Your task to perform on an android device: open app "Truecaller" Image 0: 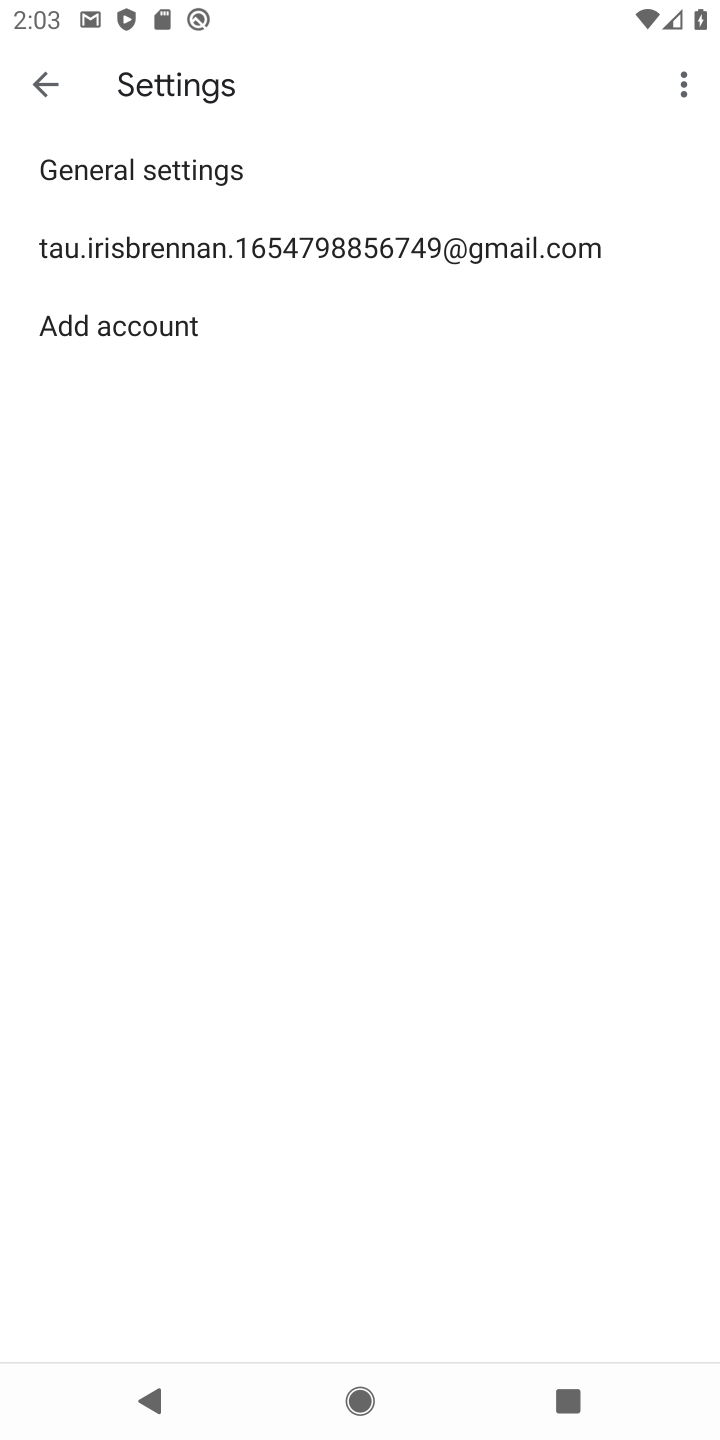
Step 0: press home button
Your task to perform on an android device: open app "Truecaller" Image 1: 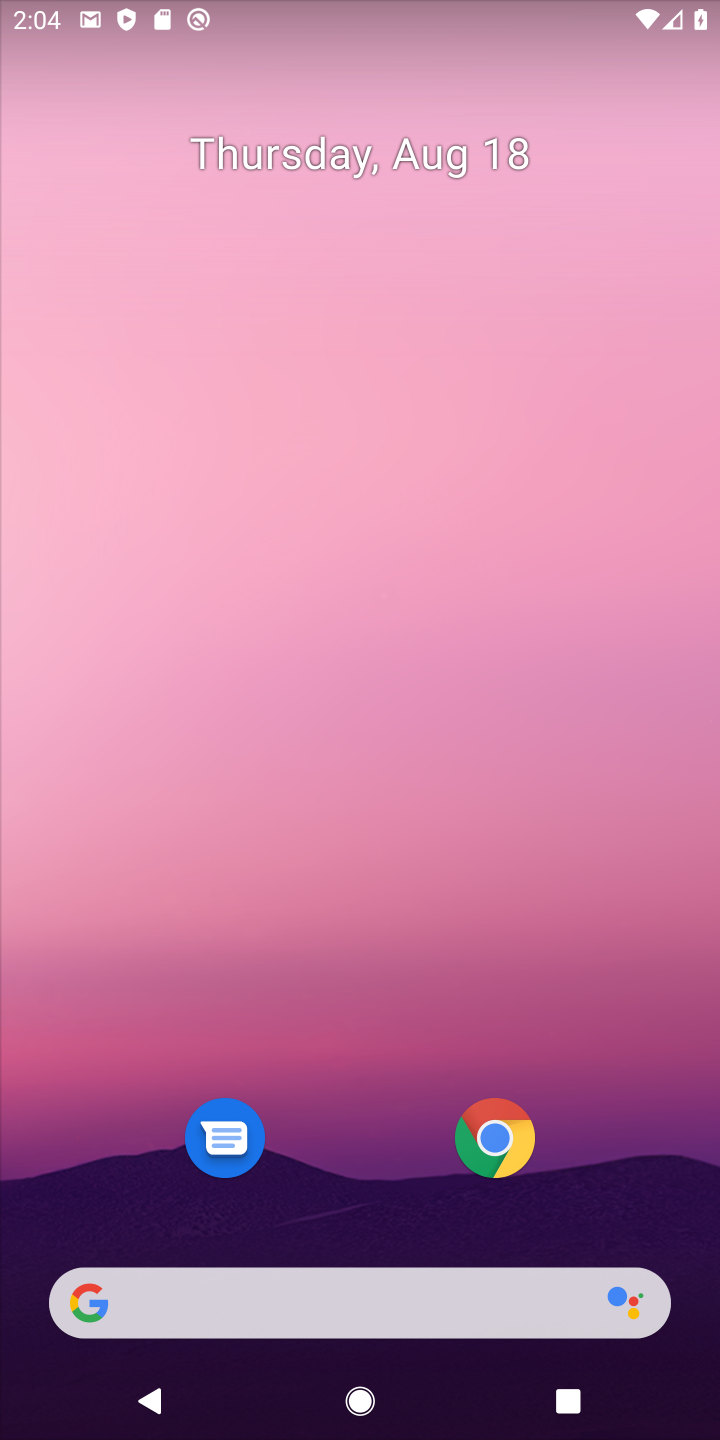
Step 1: drag from (358, 974) to (338, 299)
Your task to perform on an android device: open app "Truecaller" Image 2: 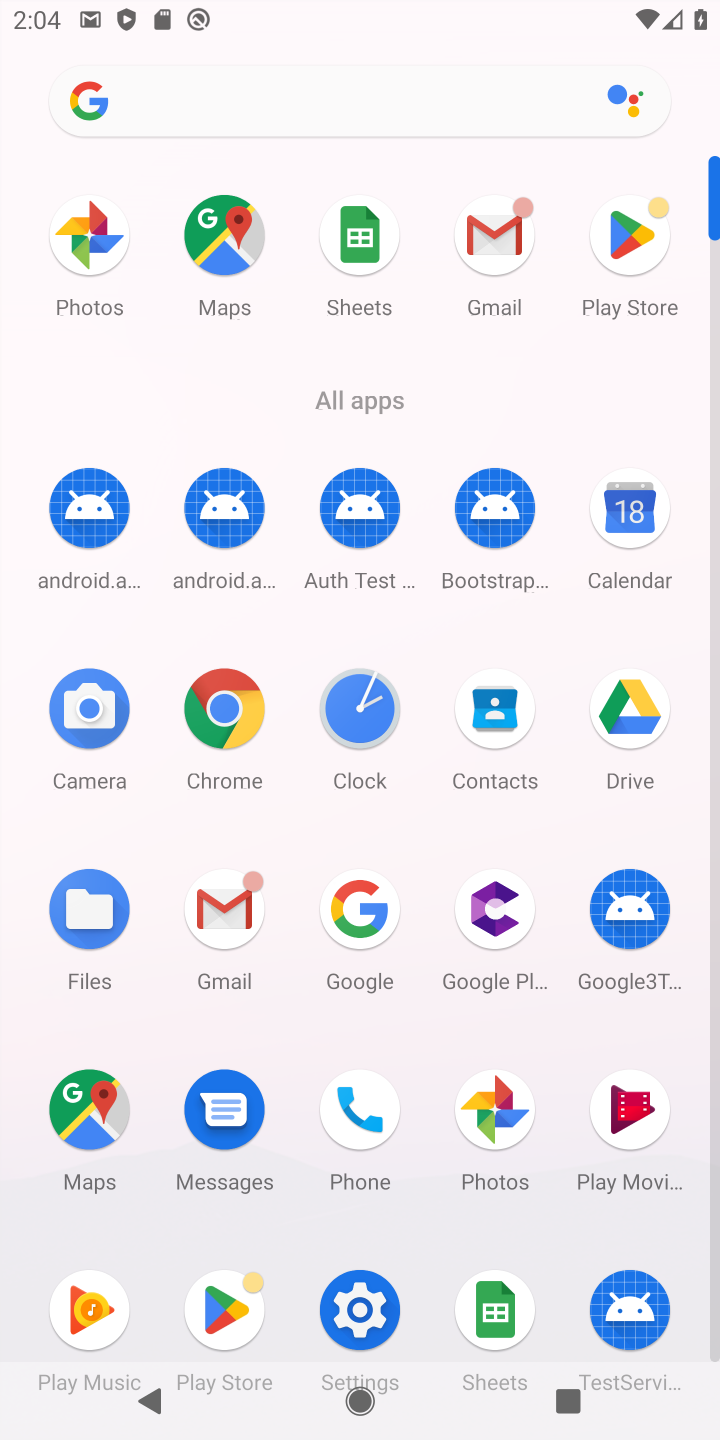
Step 2: click (232, 1315)
Your task to perform on an android device: open app "Truecaller" Image 3: 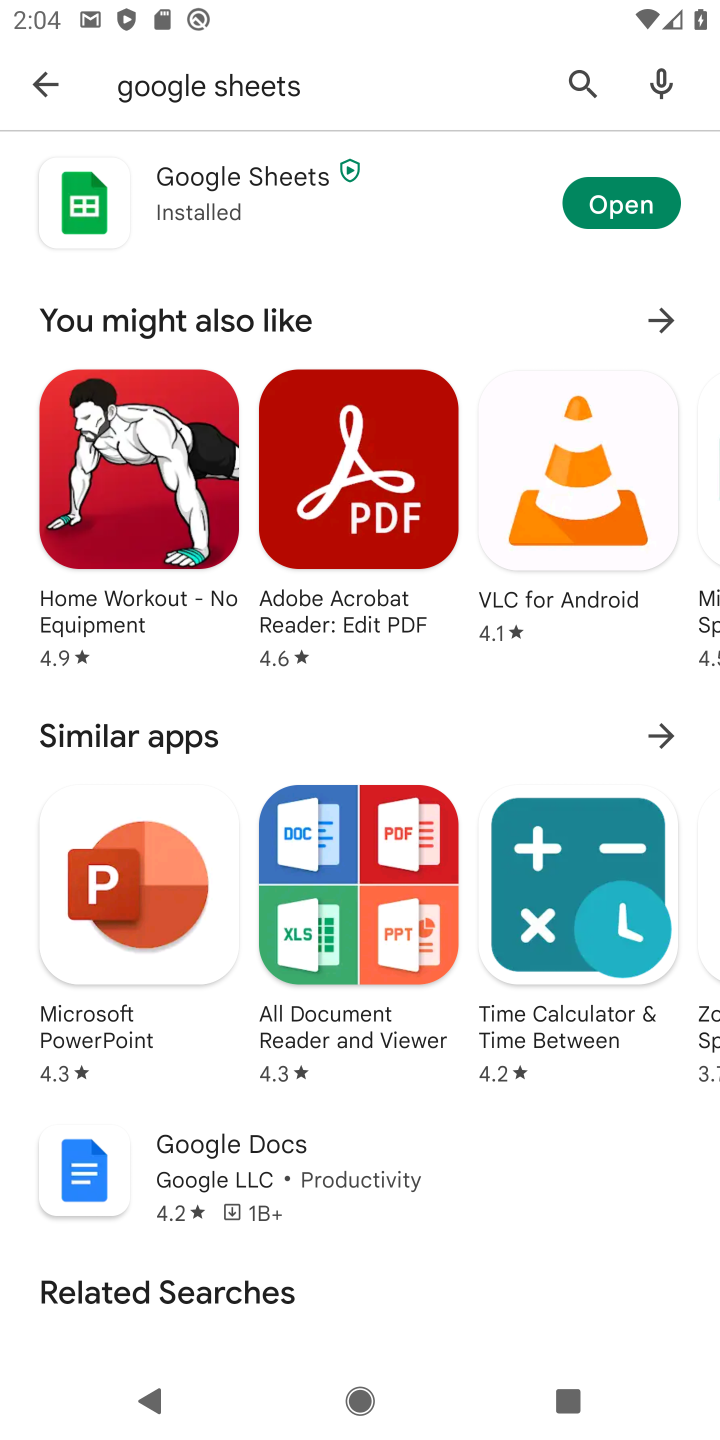
Step 3: click (42, 70)
Your task to perform on an android device: open app "Truecaller" Image 4: 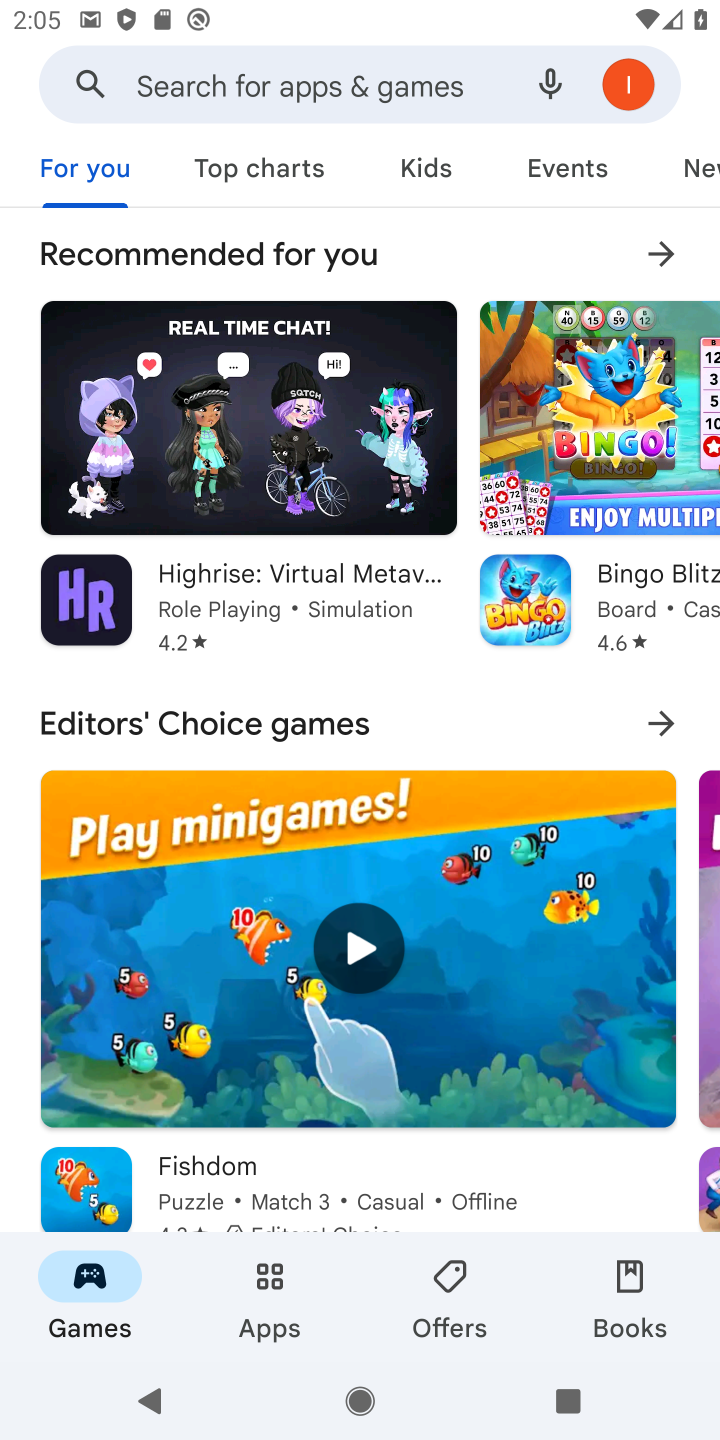
Step 4: click (242, 79)
Your task to perform on an android device: open app "Truecaller" Image 5: 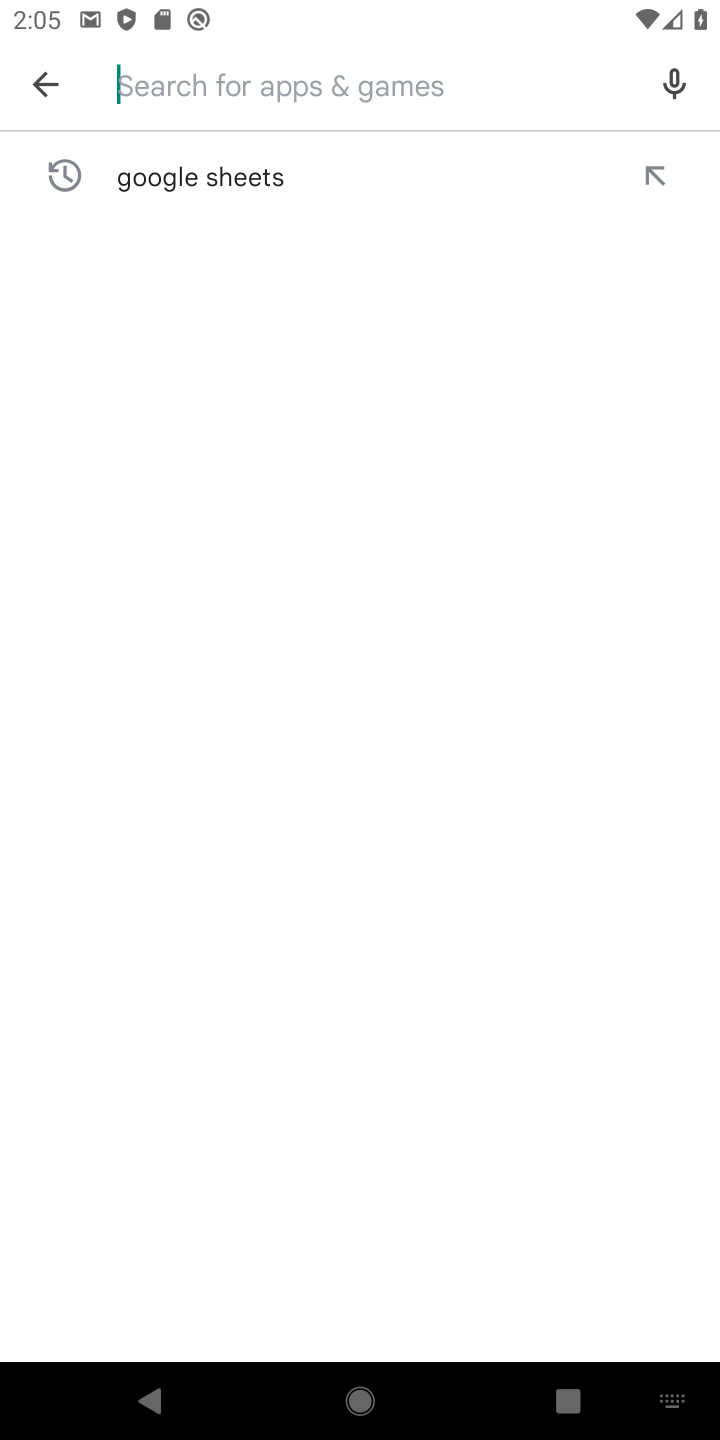
Step 5: type "Truecaller"
Your task to perform on an android device: open app "Truecaller" Image 6: 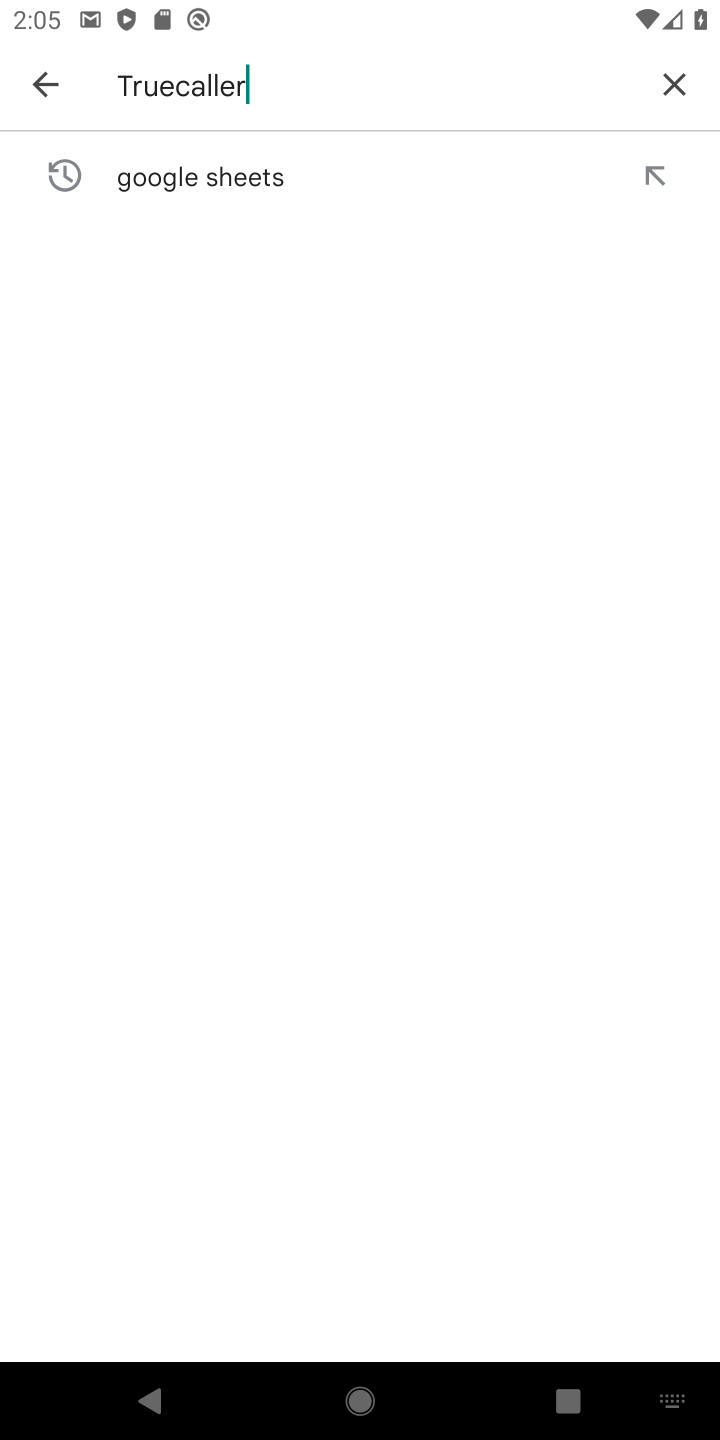
Step 6: type ""
Your task to perform on an android device: open app "Truecaller" Image 7: 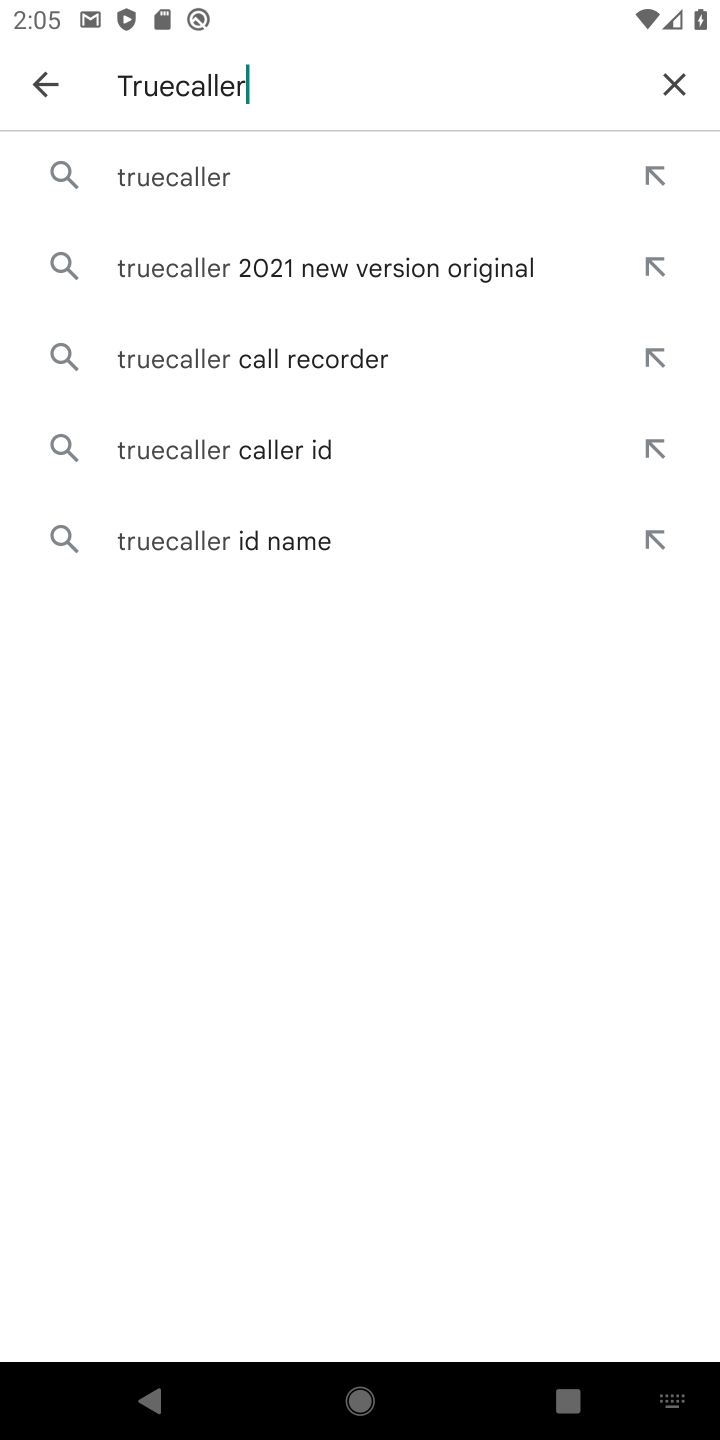
Step 7: click (166, 147)
Your task to perform on an android device: open app "Truecaller" Image 8: 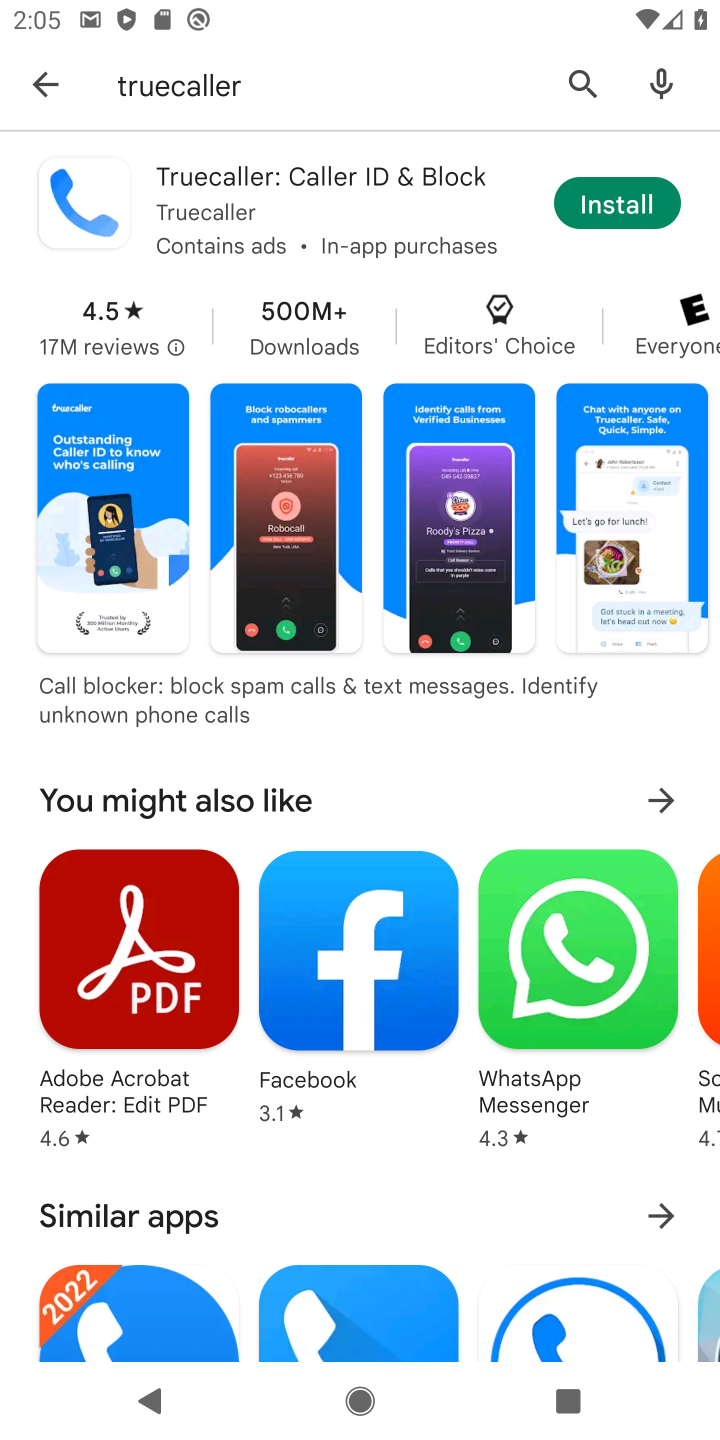
Step 8: click (254, 154)
Your task to perform on an android device: open app "Truecaller" Image 9: 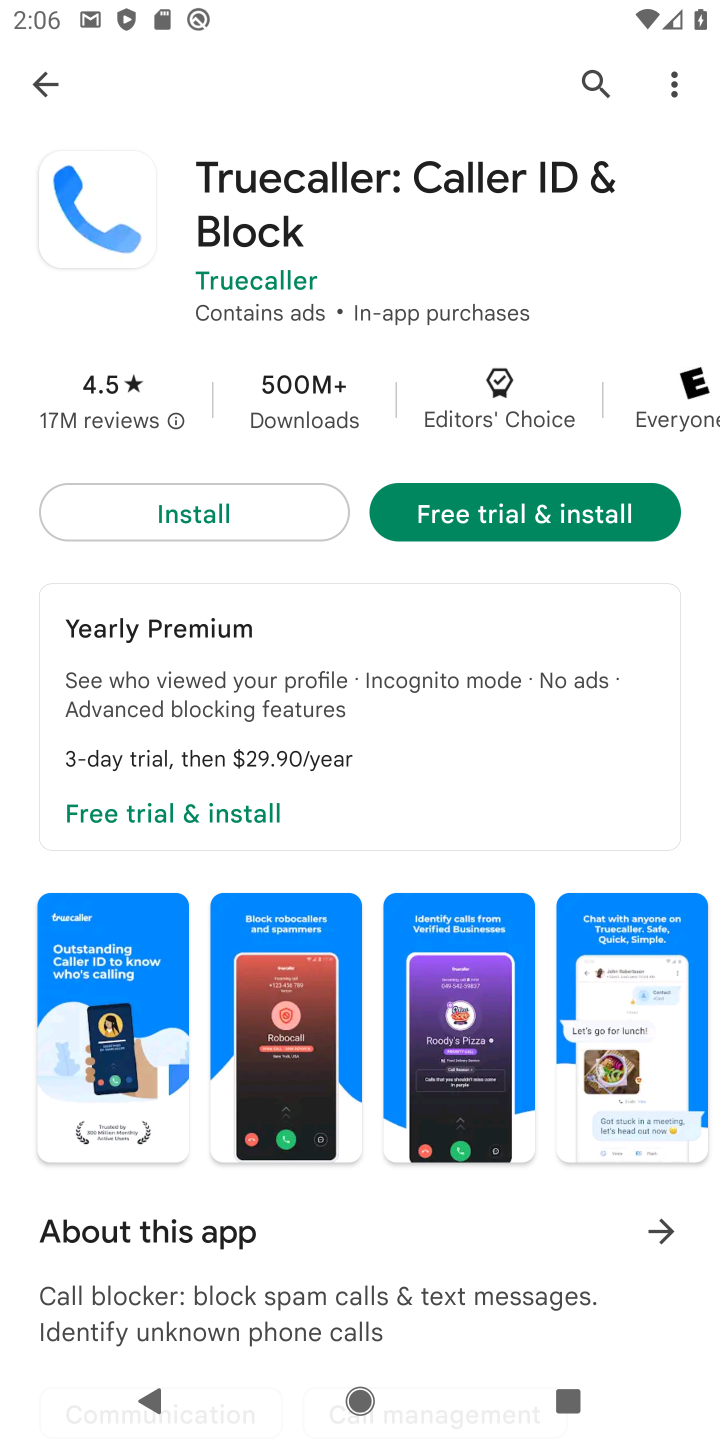
Step 9: task complete